Your task to perform on an android device: Open wifi settings Image 0: 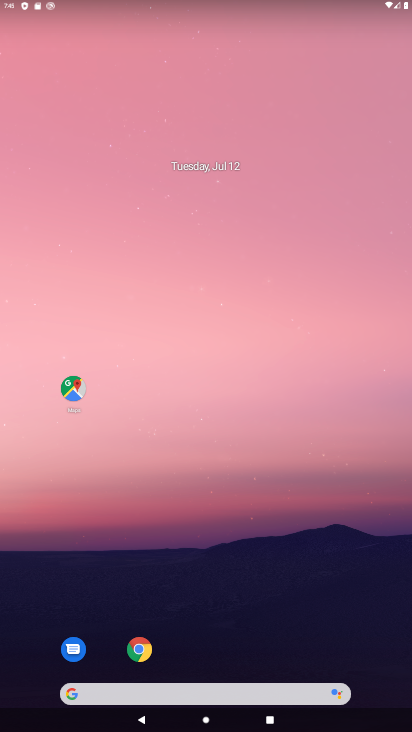
Step 0: drag from (257, 294) to (261, 165)
Your task to perform on an android device: Open wifi settings Image 1: 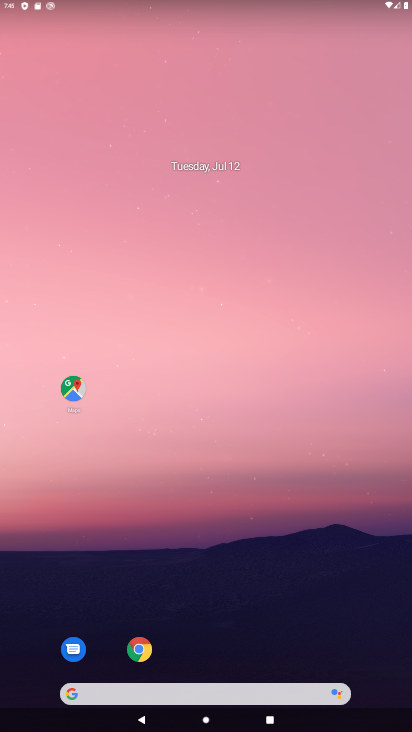
Step 1: drag from (305, 621) to (280, 206)
Your task to perform on an android device: Open wifi settings Image 2: 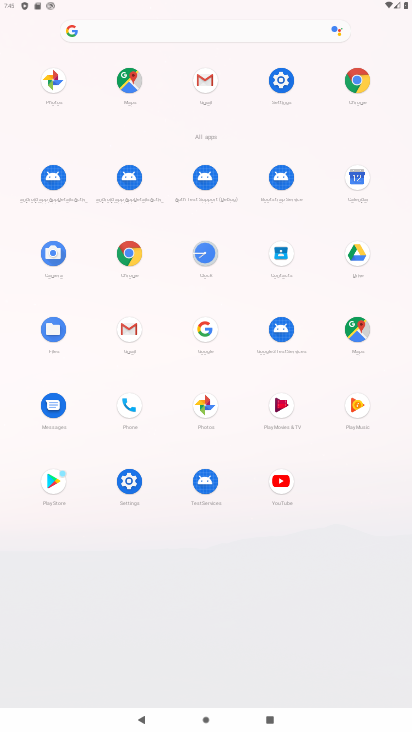
Step 2: click (291, 83)
Your task to perform on an android device: Open wifi settings Image 3: 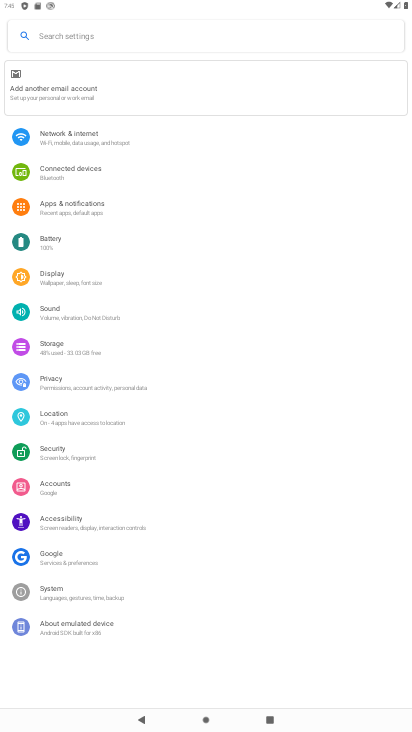
Step 3: click (93, 136)
Your task to perform on an android device: Open wifi settings Image 4: 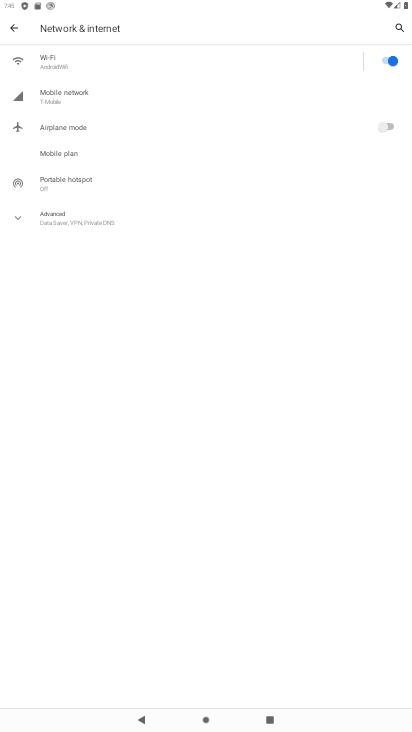
Step 4: click (224, 52)
Your task to perform on an android device: Open wifi settings Image 5: 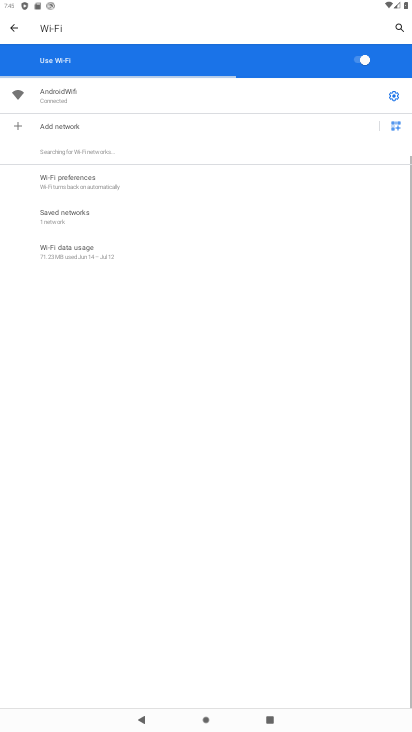
Step 5: click (395, 95)
Your task to perform on an android device: Open wifi settings Image 6: 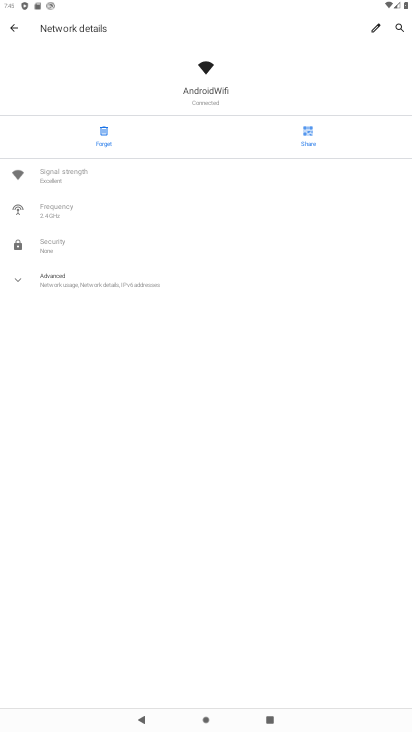
Step 6: task complete